Your task to perform on an android device: Open Reddit.com Image 0: 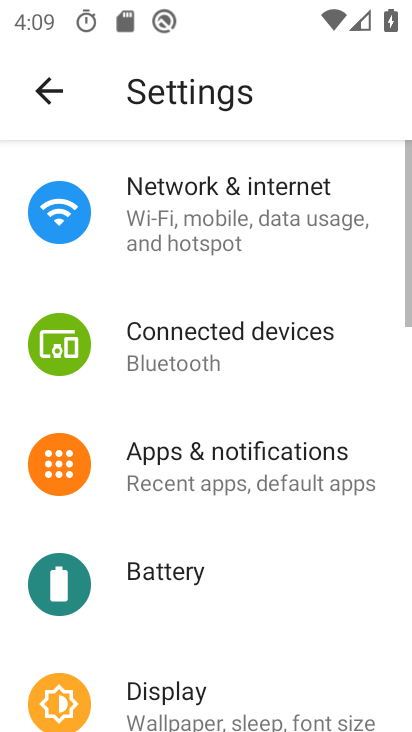
Step 0: click (240, 539)
Your task to perform on an android device: Open Reddit.com Image 1: 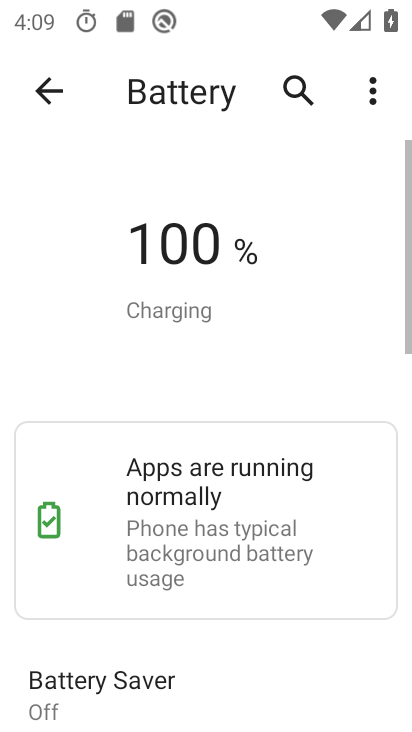
Step 1: press back button
Your task to perform on an android device: Open Reddit.com Image 2: 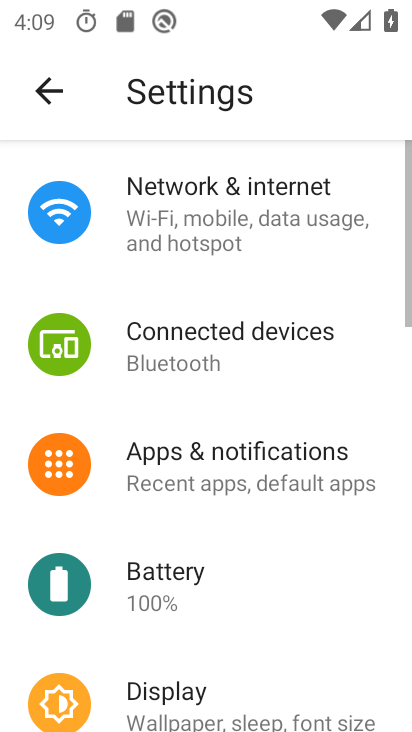
Step 2: press back button
Your task to perform on an android device: Open Reddit.com Image 3: 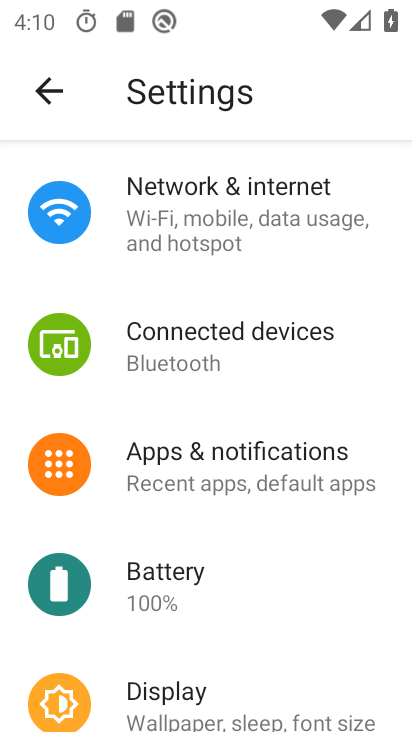
Step 3: press back button
Your task to perform on an android device: Open Reddit.com Image 4: 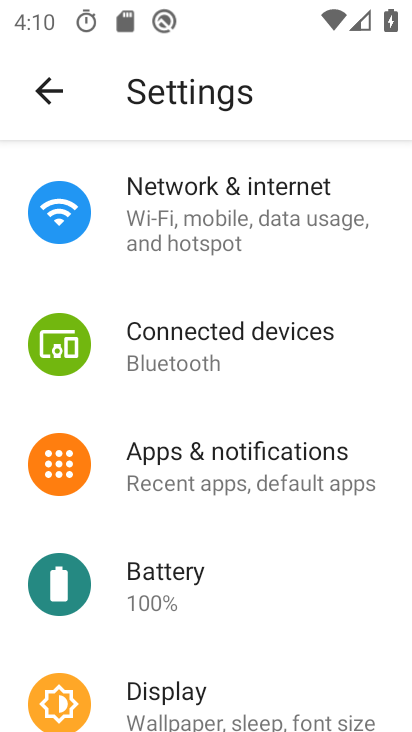
Step 4: press back button
Your task to perform on an android device: Open Reddit.com Image 5: 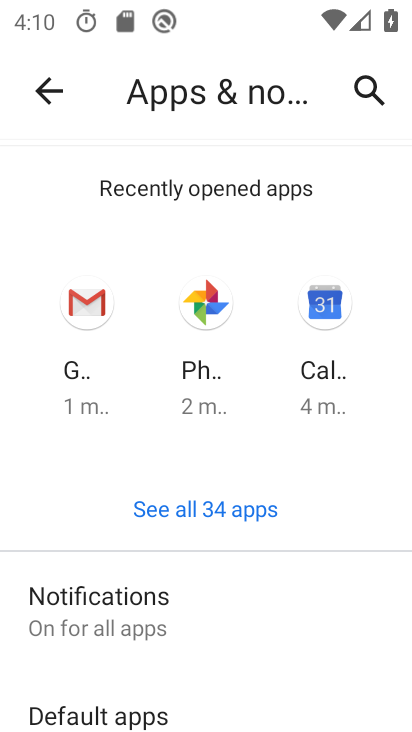
Step 5: press back button
Your task to perform on an android device: Open Reddit.com Image 6: 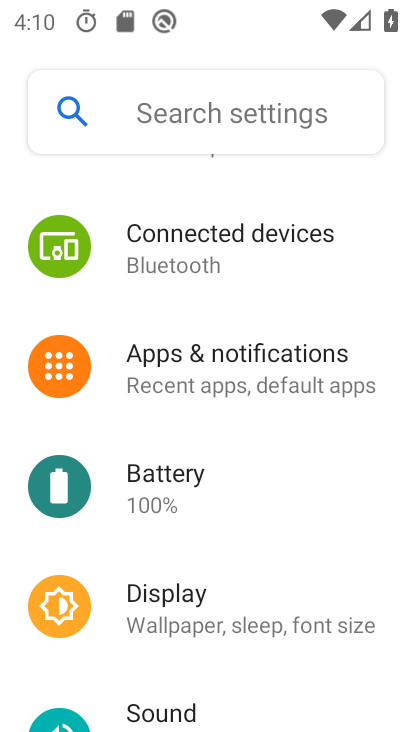
Step 6: press back button
Your task to perform on an android device: Open Reddit.com Image 7: 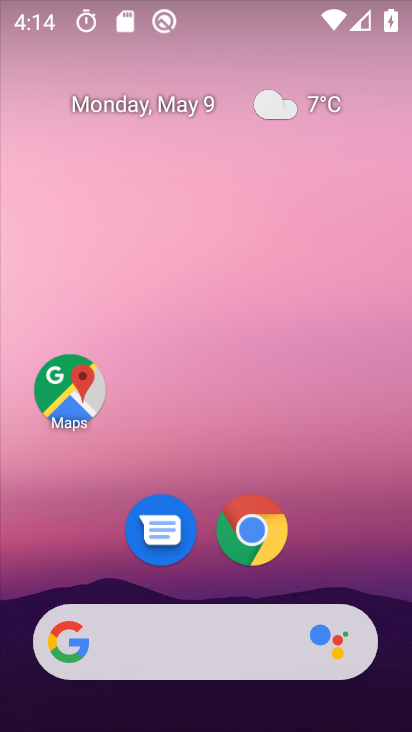
Step 7: click (267, 521)
Your task to perform on an android device: Open Reddit.com Image 8: 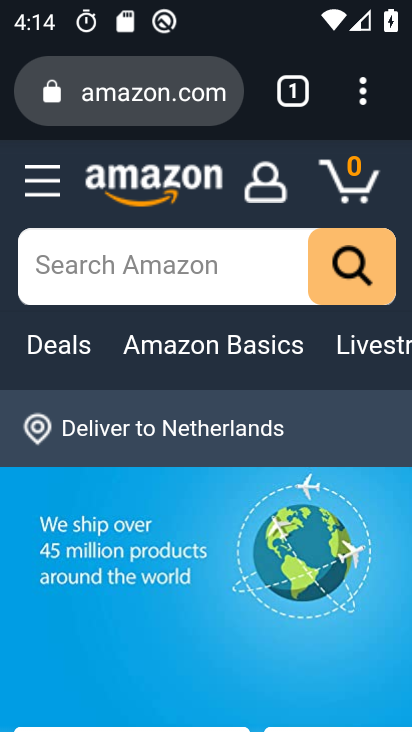
Step 8: click (292, 80)
Your task to perform on an android device: Open Reddit.com Image 9: 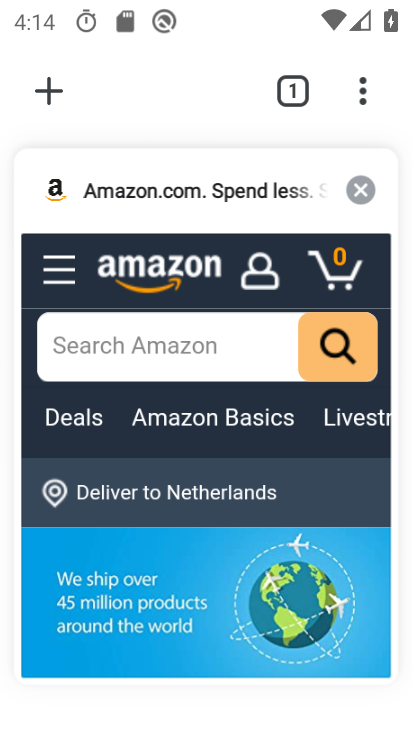
Step 9: click (45, 74)
Your task to perform on an android device: Open Reddit.com Image 10: 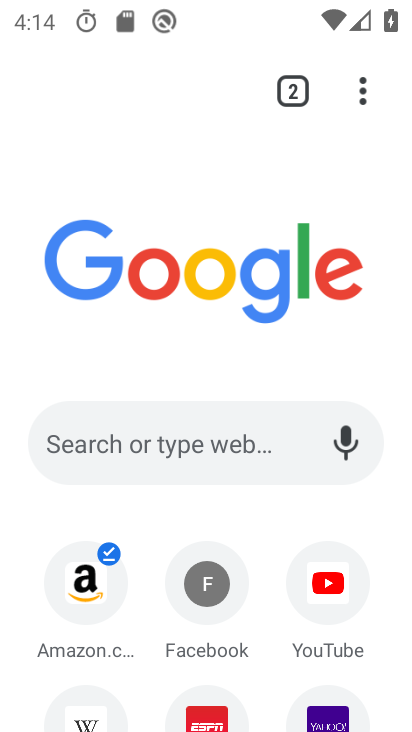
Step 10: click (119, 458)
Your task to perform on an android device: Open Reddit.com Image 11: 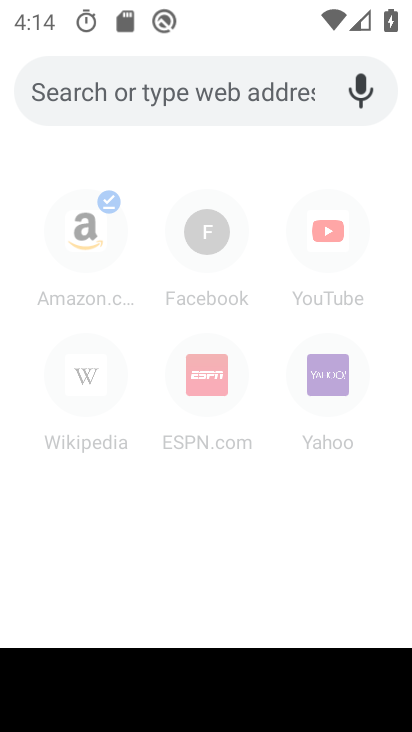
Step 11: type "reddit.com"
Your task to perform on an android device: Open Reddit.com Image 12: 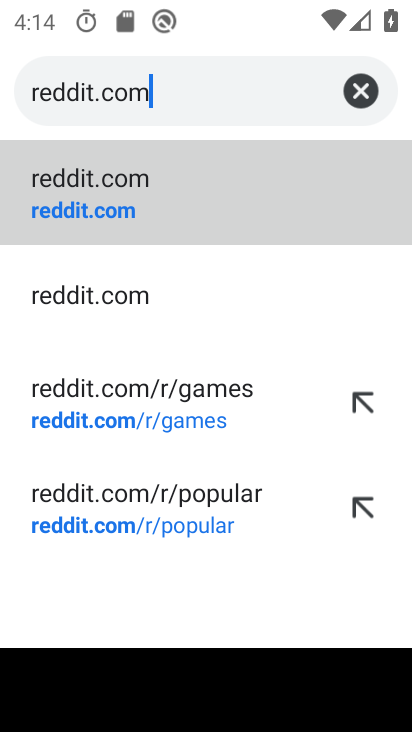
Step 12: click (112, 200)
Your task to perform on an android device: Open Reddit.com Image 13: 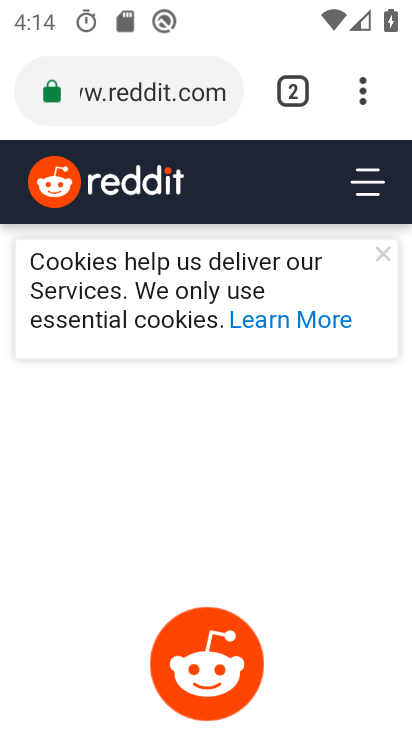
Step 13: task complete